Your task to perform on an android device: Open display settings Image 0: 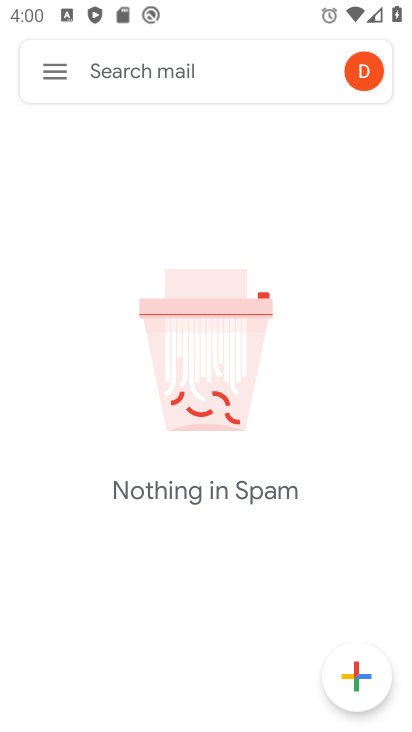
Step 0: press home button
Your task to perform on an android device: Open display settings Image 1: 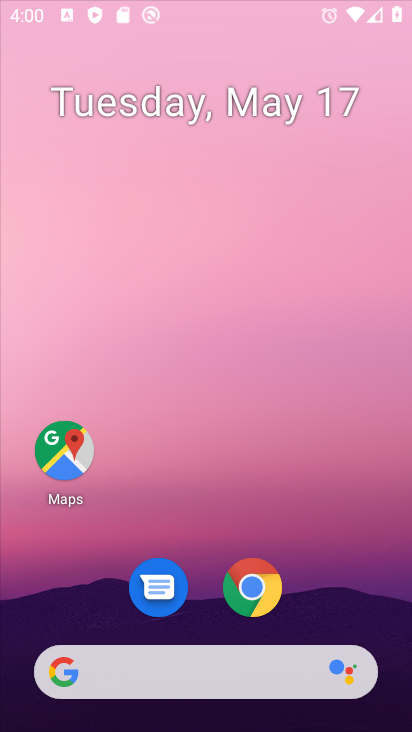
Step 1: drag from (213, 617) to (278, 31)
Your task to perform on an android device: Open display settings Image 2: 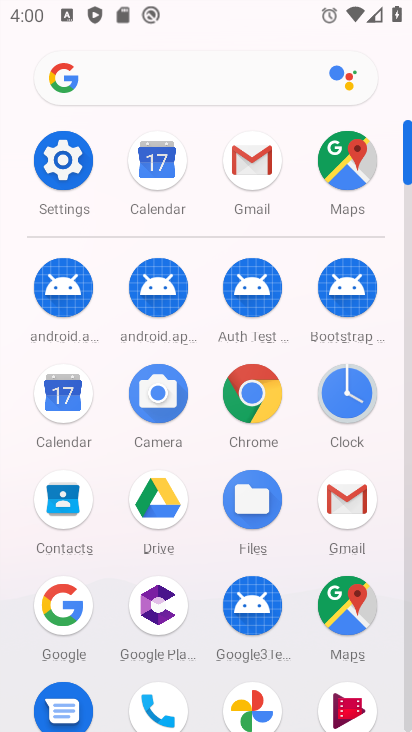
Step 2: click (36, 146)
Your task to perform on an android device: Open display settings Image 3: 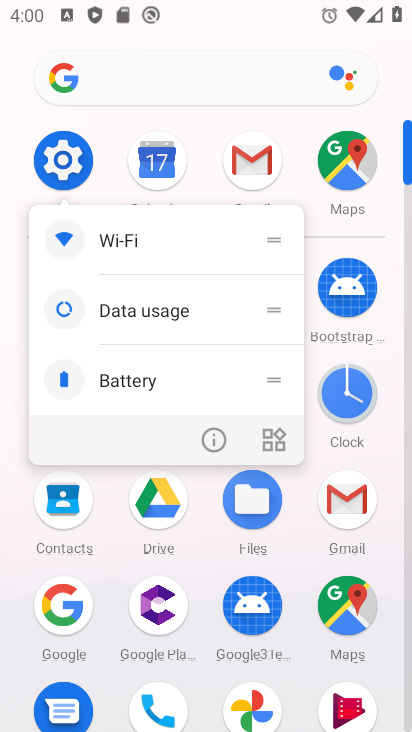
Step 3: click (209, 446)
Your task to perform on an android device: Open display settings Image 4: 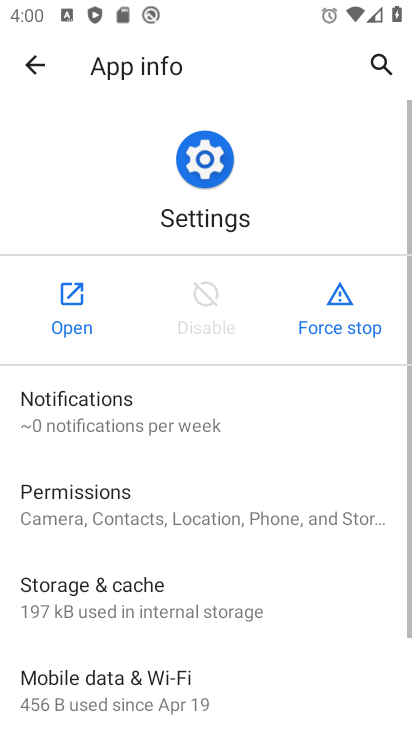
Step 4: click (65, 313)
Your task to perform on an android device: Open display settings Image 5: 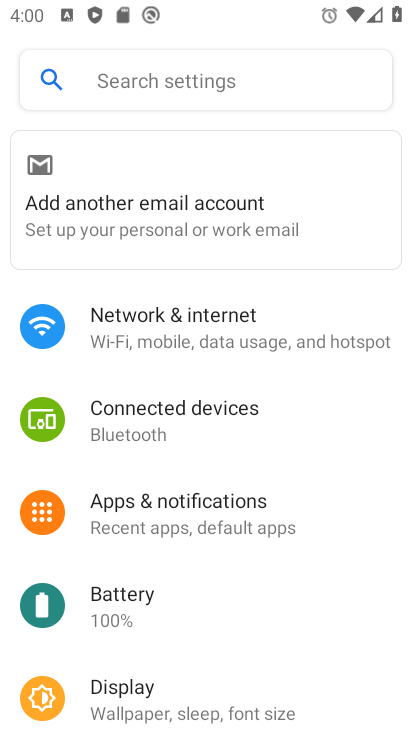
Step 5: drag from (209, 641) to (296, 181)
Your task to perform on an android device: Open display settings Image 6: 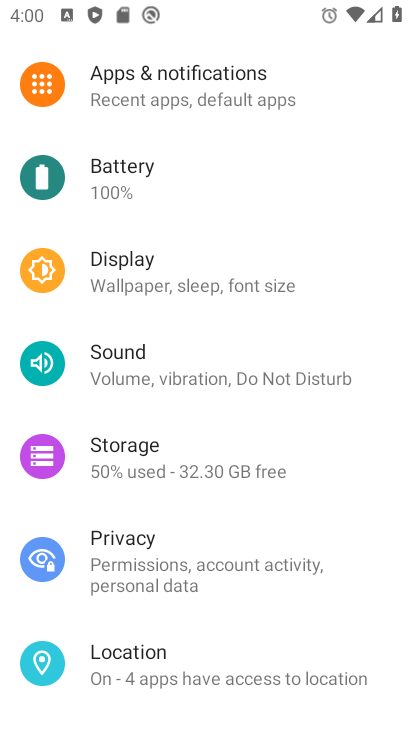
Step 6: click (154, 276)
Your task to perform on an android device: Open display settings Image 7: 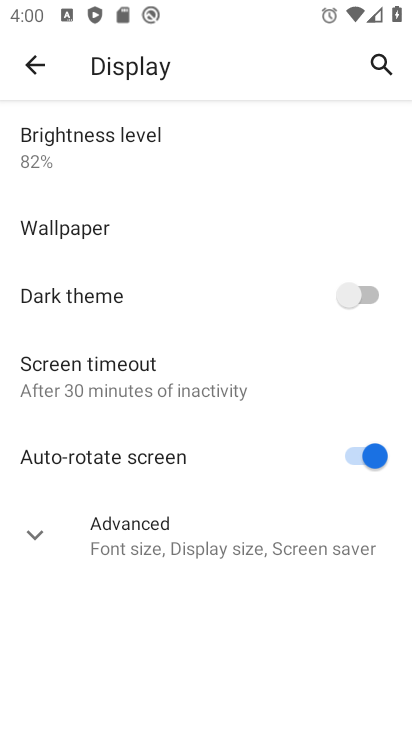
Step 7: task complete